Your task to perform on an android device: open a new tab in the chrome app Image 0: 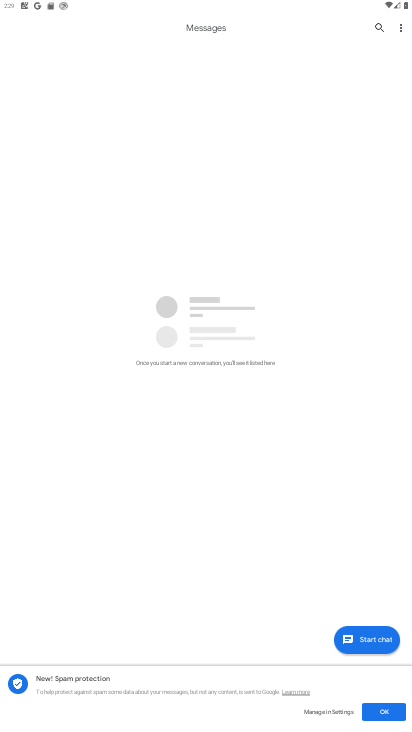
Step 0: press home button
Your task to perform on an android device: open a new tab in the chrome app Image 1: 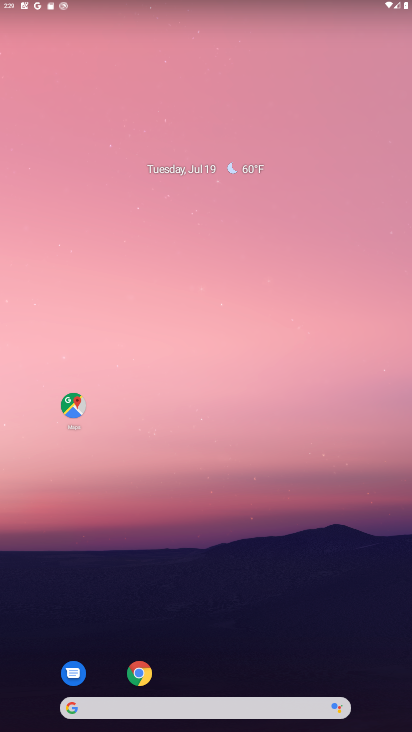
Step 1: click (140, 678)
Your task to perform on an android device: open a new tab in the chrome app Image 2: 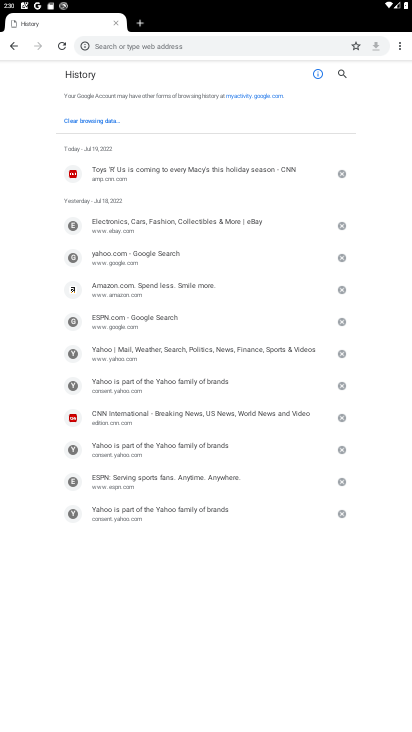
Step 2: click (400, 44)
Your task to perform on an android device: open a new tab in the chrome app Image 3: 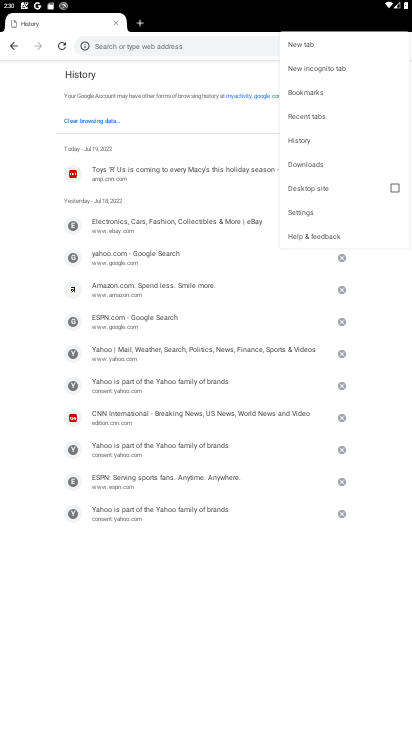
Step 3: click (317, 44)
Your task to perform on an android device: open a new tab in the chrome app Image 4: 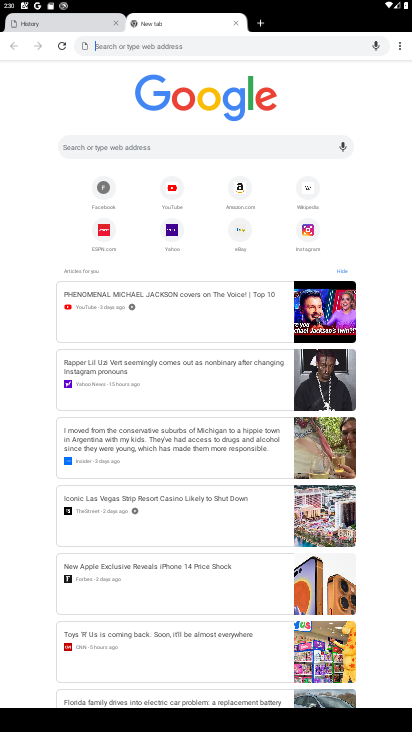
Step 4: task complete